Your task to perform on an android device: Open internet settings Image 0: 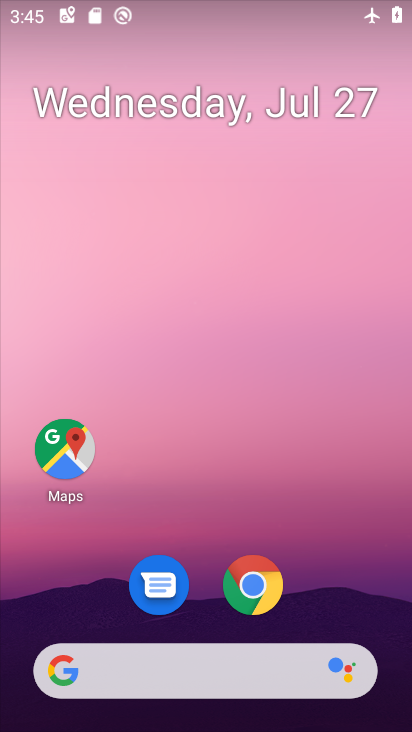
Step 0: drag from (338, 523) to (326, 27)
Your task to perform on an android device: Open internet settings Image 1: 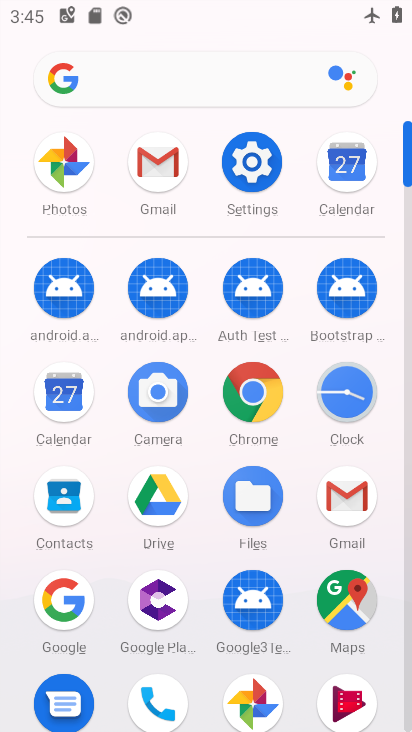
Step 1: click (258, 155)
Your task to perform on an android device: Open internet settings Image 2: 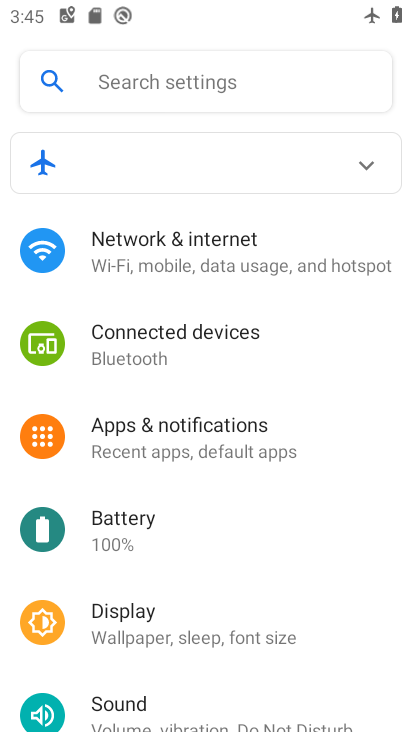
Step 2: click (248, 247)
Your task to perform on an android device: Open internet settings Image 3: 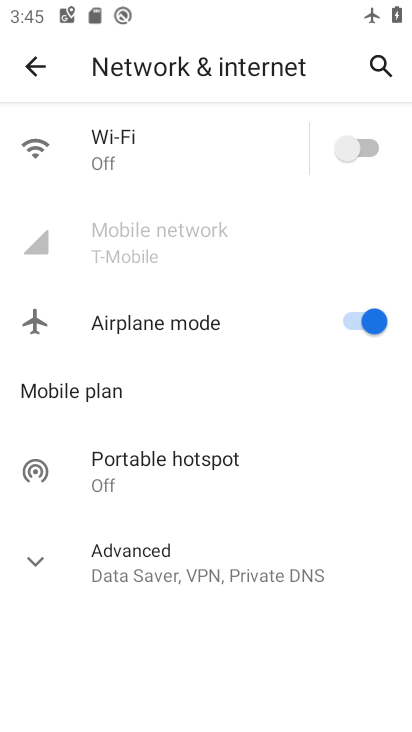
Step 3: task complete